Your task to perform on an android device: open app "DoorDash - Dasher" (install if not already installed) and go to login screen Image 0: 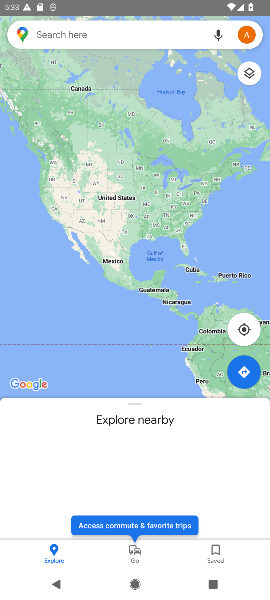
Step 0: press home button
Your task to perform on an android device: open app "DoorDash - Dasher" (install if not already installed) and go to login screen Image 1: 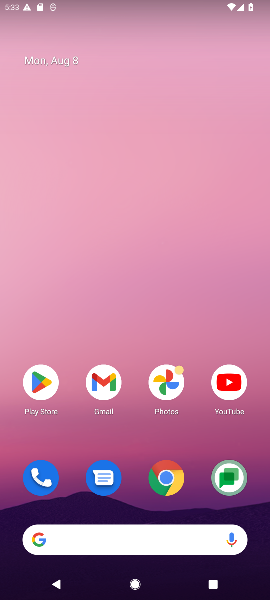
Step 1: click (46, 369)
Your task to perform on an android device: open app "DoorDash - Dasher" (install if not already installed) and go to login screen Image 2: 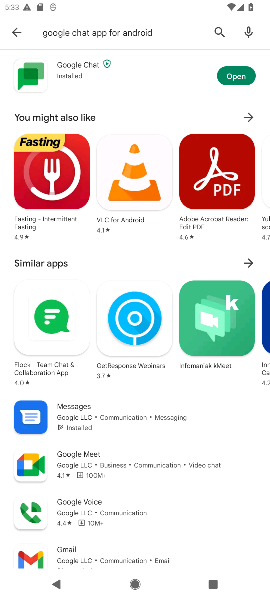
Step 2: click (174, 31)
Your task to perform on an android device: open app "DoorDash - Dasher" (install if not already installed) and go to login screen Image 3: 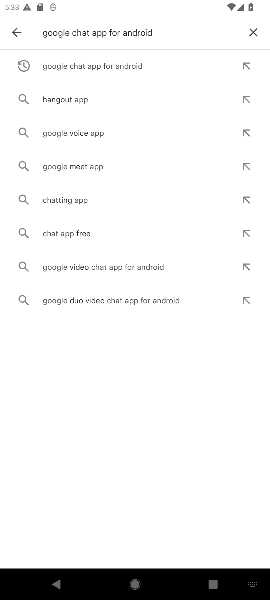
Step 3: click (252, 30)
Your task to perform on an android device: open app "DoorDash - Dasher" (install if not already installed) and go to login screen Image 4: 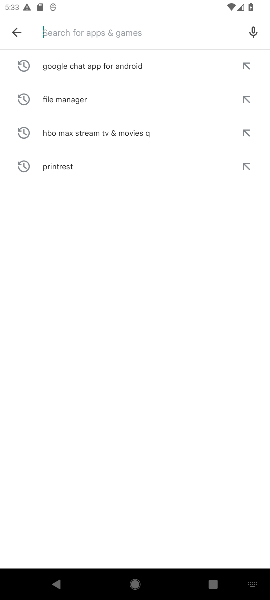
Step 4: type "doordash - dasher"
Your task to perform on an android device: open app "DoorDash - Dasher" (install if not already installed) and go to login screen Image 5: 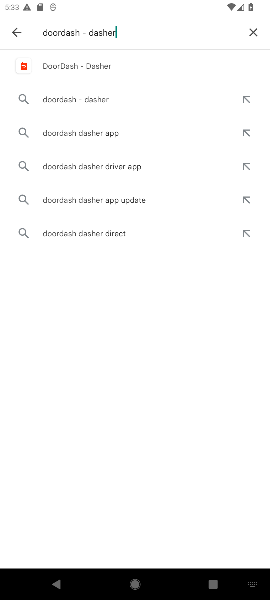
Step 5: click (89, 65)
Your task to perform on an android device: open app "DoorDash - Dasher" (install if not already installed) and go to login screen Image 6: 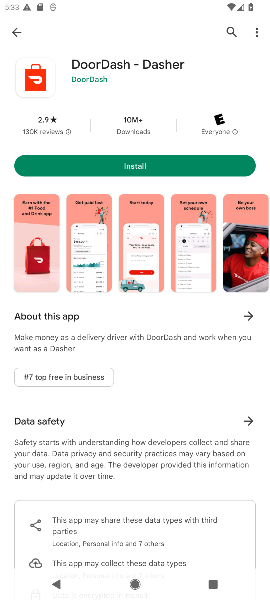
Step 6: click (143, 167)
Your task to perform on an android device: open app "DoorDash - Dasher" (install if not already installed) and go to login screen Image 7: 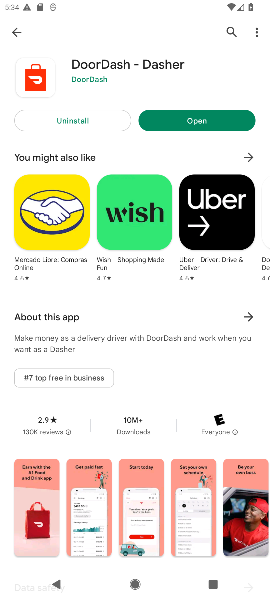
Step 7: click (224, 121)
Your task to perform on an android device: open app "DoorDash - Dasher" (install if not already installed) and go to login screen Image 8: 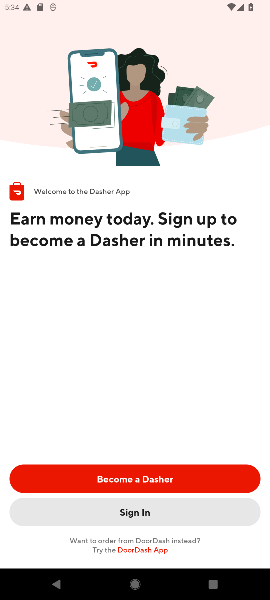
Step 8: click (157, 508)
Your task to perform on an android device: open app "DoorDash - Dasher" (install if not already installed) and go to login screen Image 9: 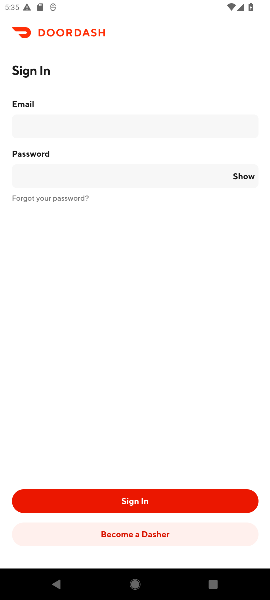
Step 9: task complete